Your task to perform on an android device: Open the map Image 0: 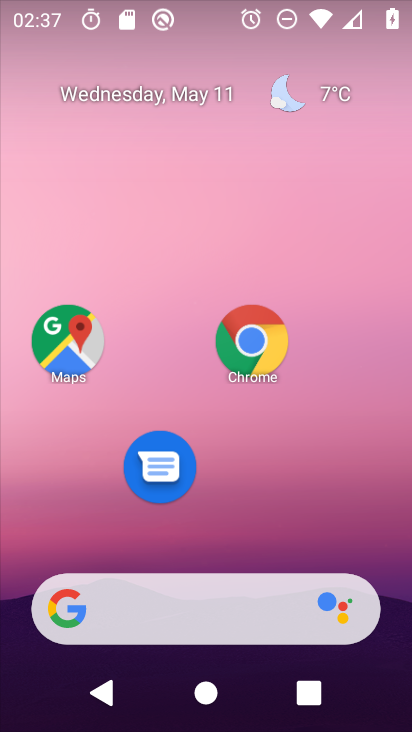
Step 0: click (68, 363)
Your task to perform on an android device: Open the map Image 1: 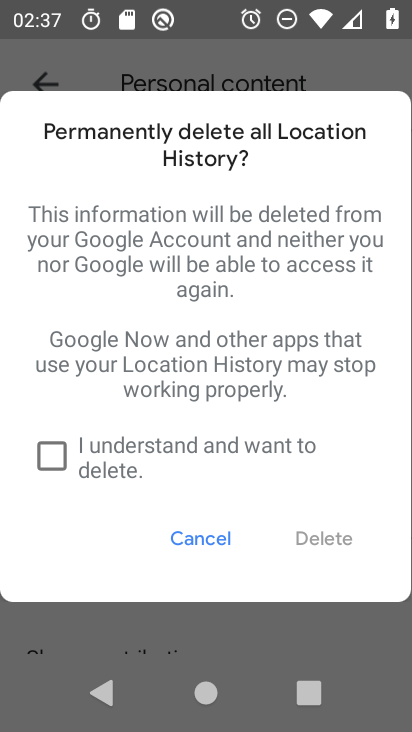
Step 1: press back button
Your task to perform on an android device: Open the map Image 2: 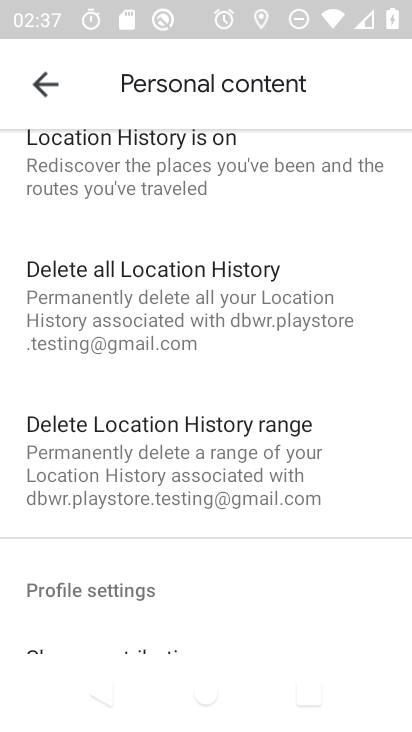
Step 2: click (44, 83)
Your task to perform on an android device: Open the map Image 3: 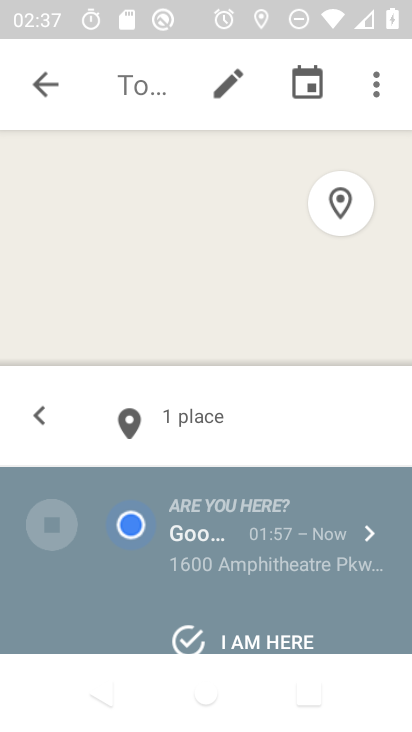
Step 3: click (44, 83)
Your task to perform on an android device: Open the map Image 4: 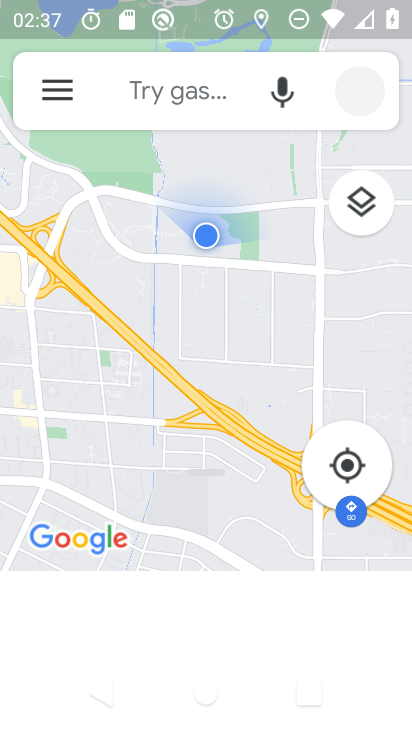
Step 4: click (44, 83)
Your task to perform on an android device: Open the map Image 5: 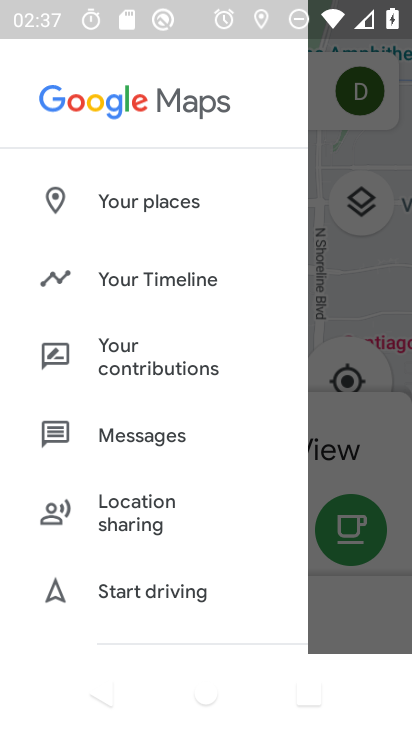
Step 5: task complete